Your task to perform on an android device: turn off data saver in the chrome app Image 0: 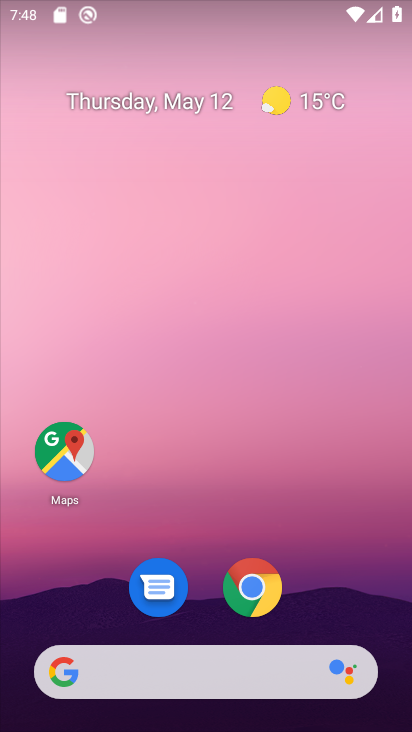
Step 0: drag from (394, 616) to (240, 120)
Your task to perform on an android device: turn off data saver in the chrome app Image 1: 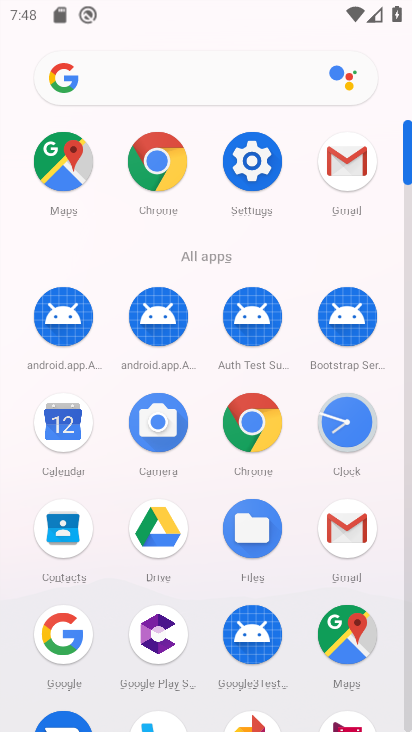
Step 1: click (250, 423)
Your task to perform on an android device: turn off data saver in the chrome app Image 2: 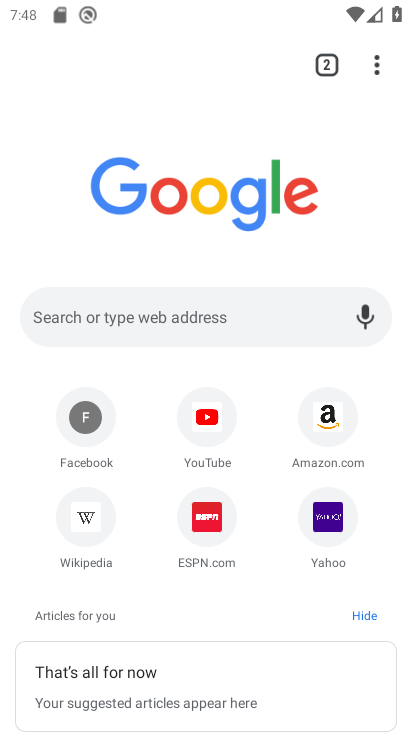
Step 2: click (374, 58)
Your task to perform on an android device: turn off data saver in the chrome app Image 3: 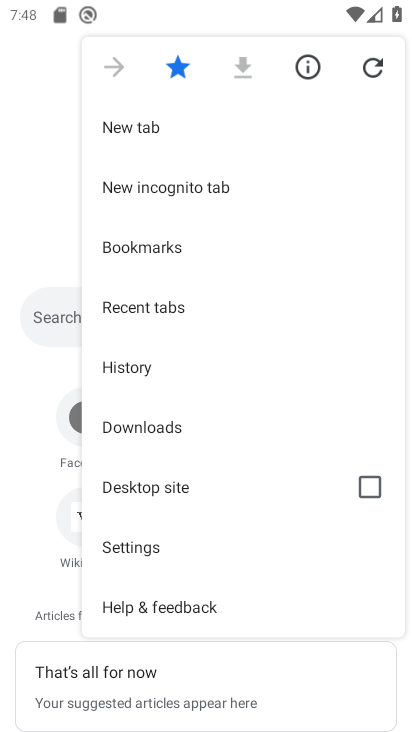
Step 3: click (220, 548)
Your task to perform on an android device: turn off data saver in the chrome app Image 4: 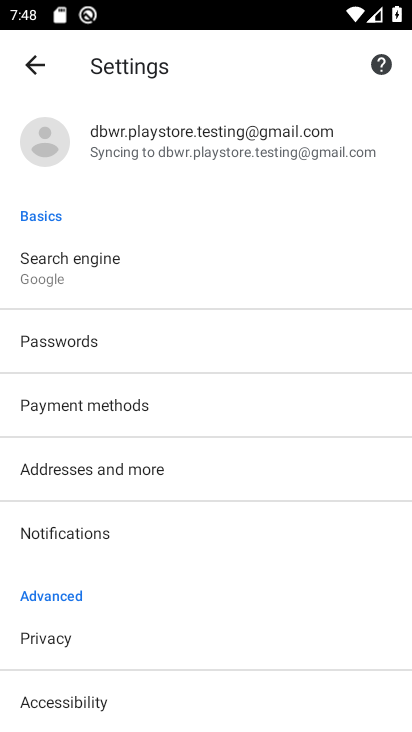
Step 4: drag from (216, 595) to (249, 217)
Your task to perform on an android device: turn off data saver in the chrome app Image 5: 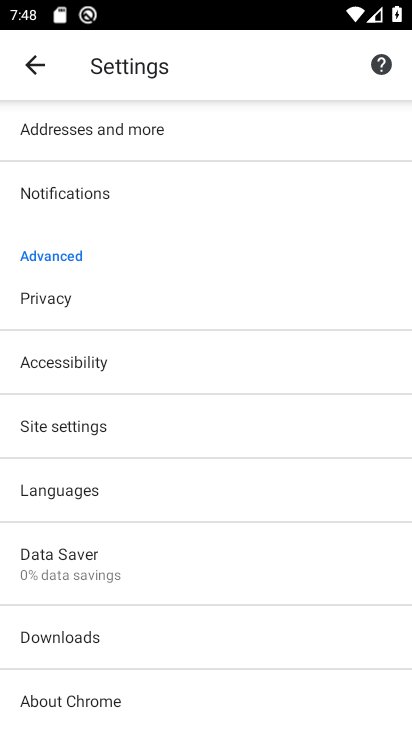
Step 5: click (217, 560)
Your task to perform on an android device: turn off data saver in the chrome app Image 6: 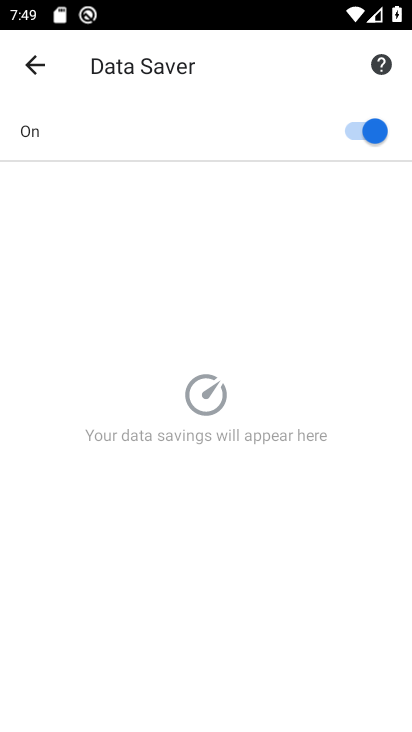
Step 6: click (347, 128)
Your task to perform on an android device: turn off data saver in the chrome app Image 7: 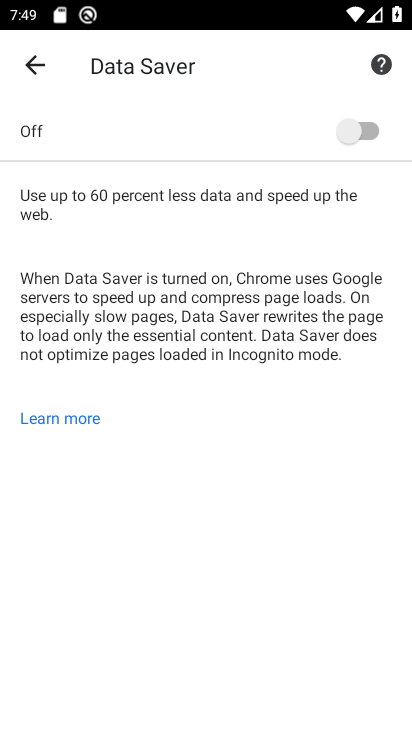
Step 7: task complete